Your task to perform on an android device: turn on the 12-hour format for clock Image 0: 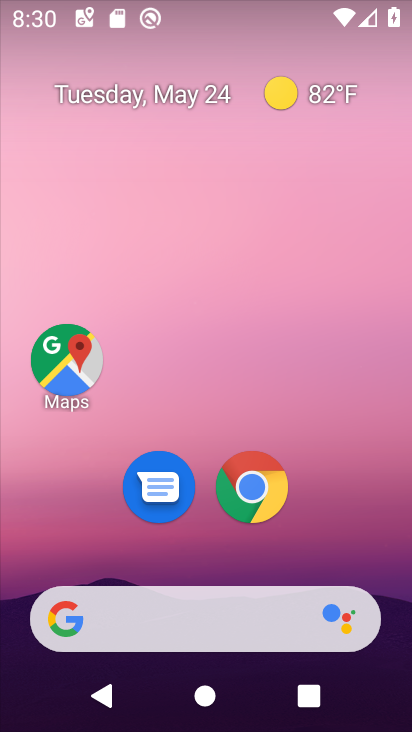
Step 0: drag from (368, 525) to (375, 162)
Your task to perform on an android device: turn on the 12-hour format for clock Image 1: 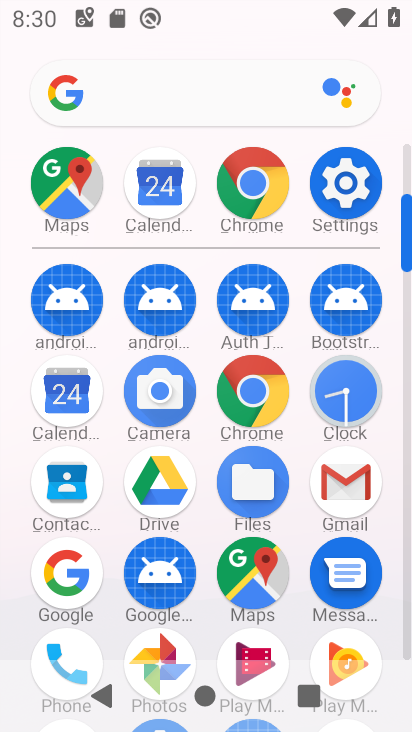
Step 1: click (344, 176)
Your task to perform on an android device: turn on the 12-hour format for clock Image 2: 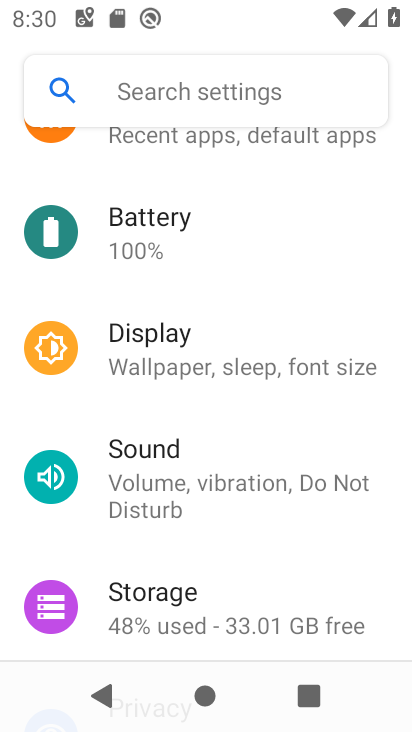
Step 2: drag from (267, 570) to (304, 242)
Your task to perform on an android device: turn on the 12-hour format for clock Image 3: 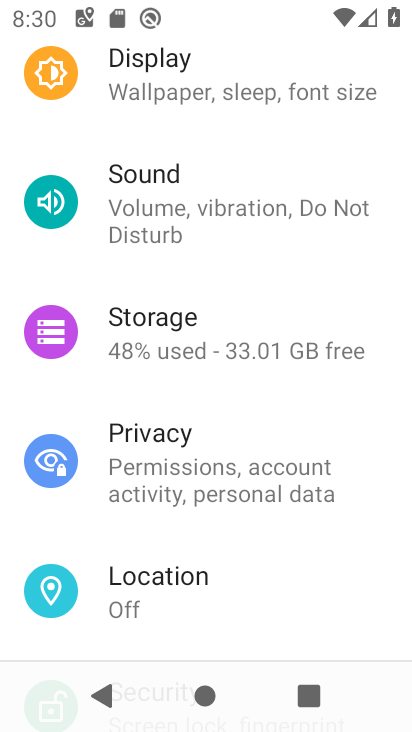
Step 3: press home button
Your task to perform on an android device: turn on the 12-hour format for clock Image 4: 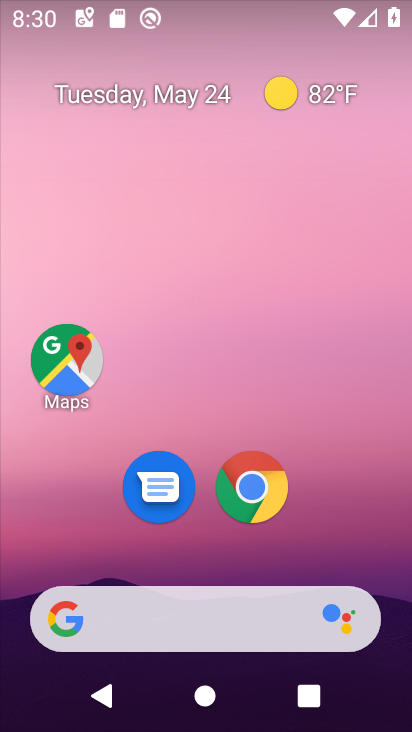
Step 4: drag from (371, 490) to (369, 119)
Your task to perform on an android device: turn on the 12-hour format for clock Image 5: 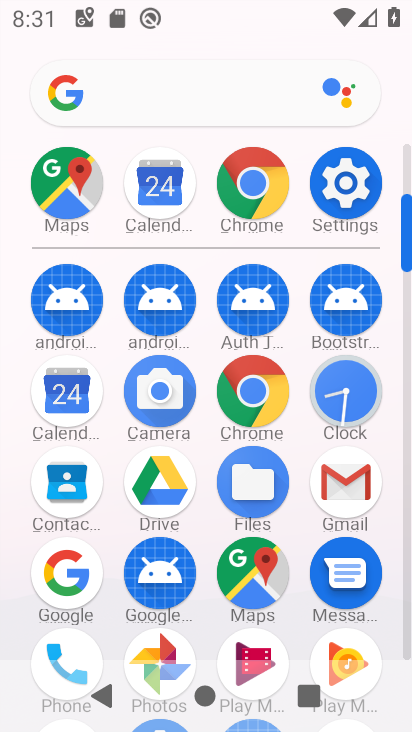
Step 5: click (354, 390)
Your task to perform on an android device: turn on the 12-hour format for clock Image 6: 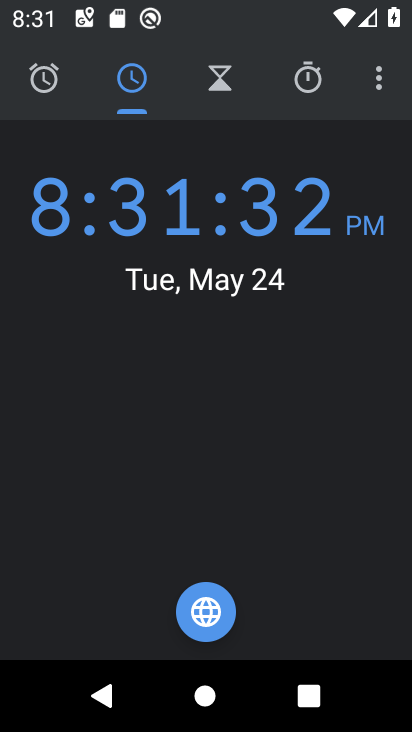
Step 6: click (389, 88)
Your task to perform on an android device: turn on the 12-hour format for clock Image 7: 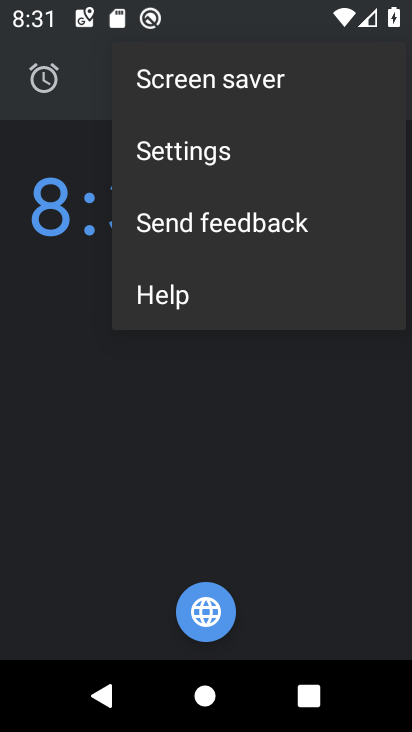
Step 7: click (258, 149)
Your task to perform on an android device: turn on the 12-hour format for clock Image 8: 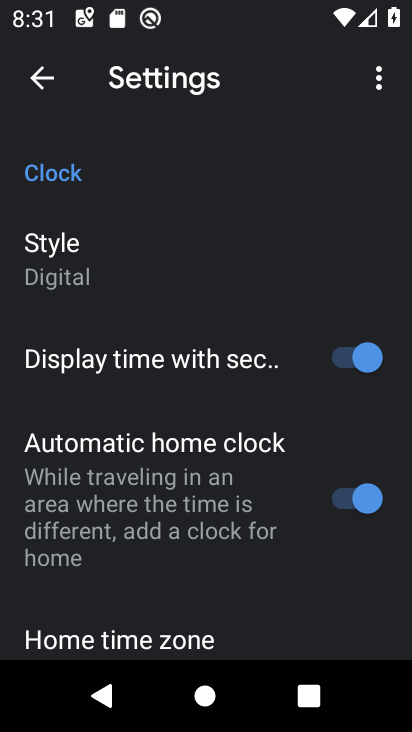
Step 8: drag from (228, 590) to (226, 246)
Your task to perform on an android device: turn on the 12-hour format for clock Image 9: 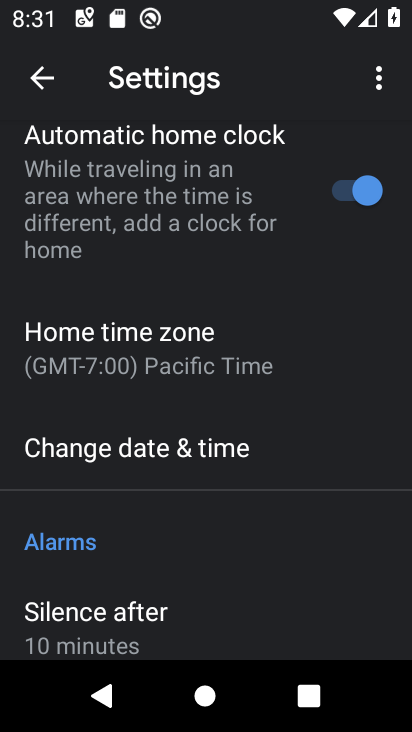
Step 9: click (201, 472)
Your task to perform on an android device: turn on the 12-hour format for clock Image 10: 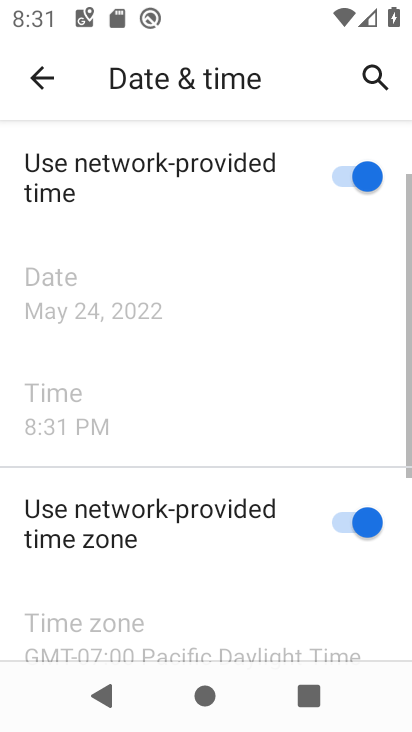
Step 10: task complete